Your task to perform on an android device: Search for seafood restaurants on Google Maps Image 0: 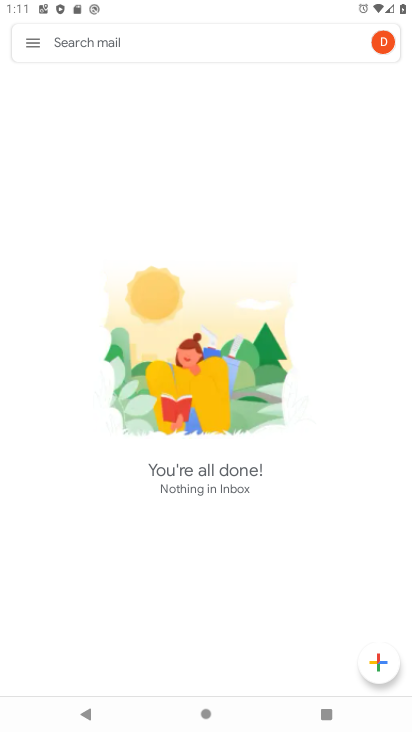
Step 0: press home button
Your task to perform on an android device: Search for seafood restaurants on Google Maps Image 1: 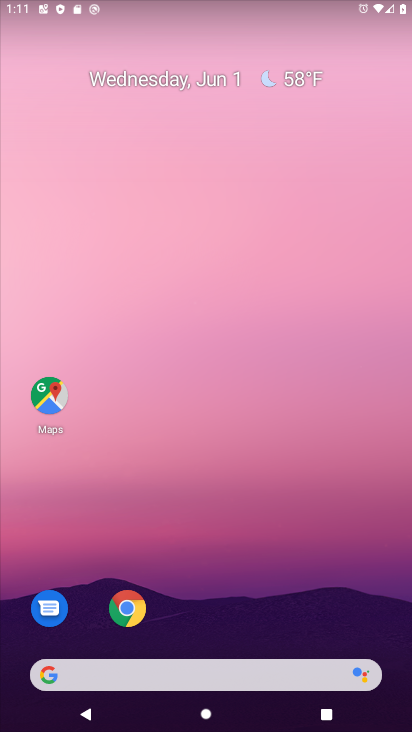
Step 1: click (53, 391)
Your task to perform on an android device: Search for seafood restaurants on Google Maps Image 2: 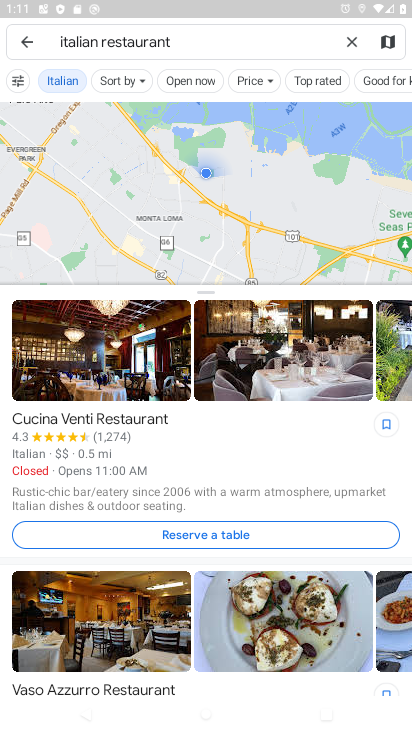
Step 2: click (356, 39)
Your task to perform on an android device: Search for seafood restaurants on Google Maps Image 3: 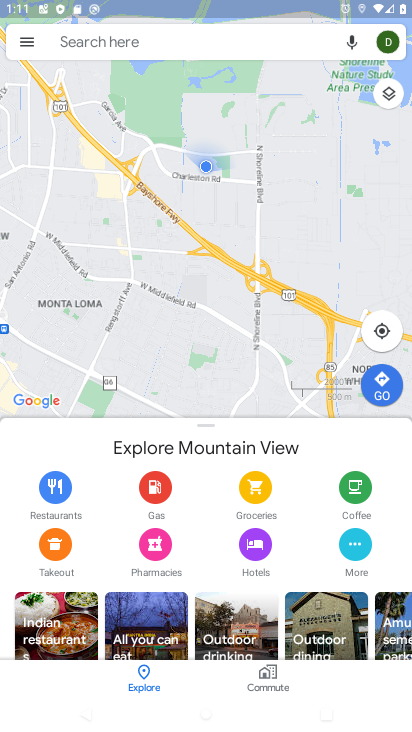
Step 3: click (186, 41)
Your task to perform on an android device: Search for seafood restaurants on Google Maps Image 4: 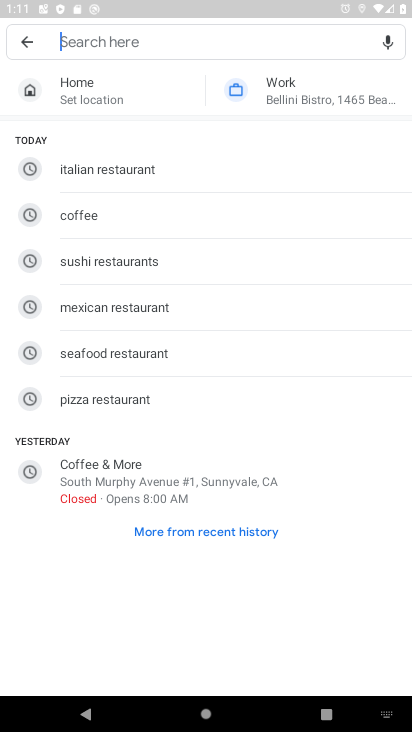
Step 4: click (148, 347)
Your task to perform on an android device: Search for seafood restaurants on Google Maps Image 5: 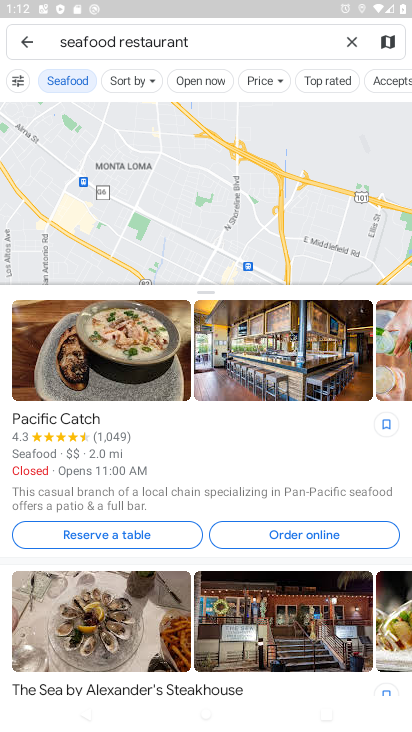
Step 5: task complete